Your task to perform on an android device: change the clock display to digital Image 0: 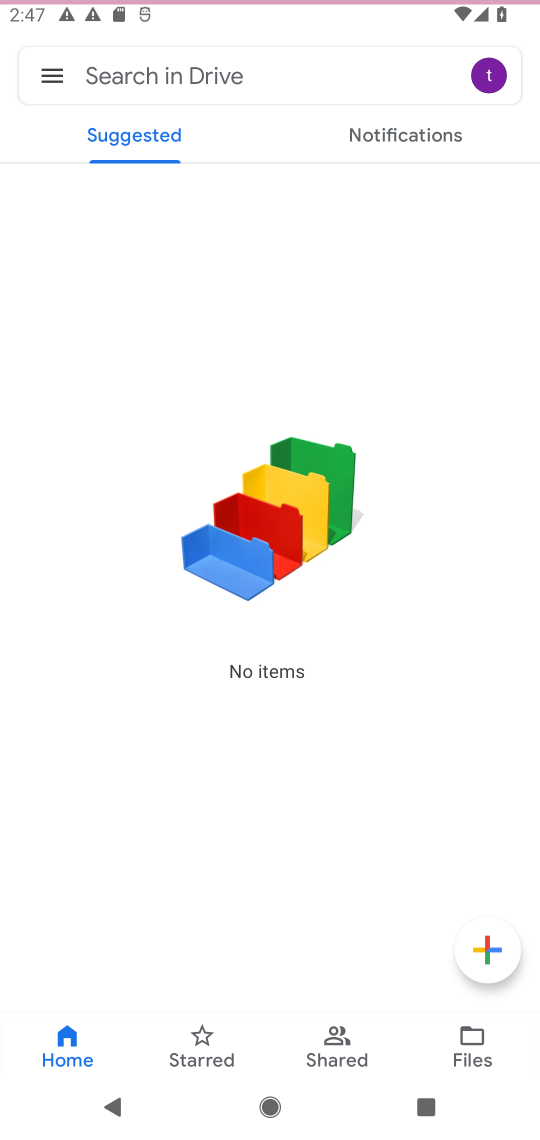
Step 0: press home button
Your task to perform on an android device: change the clock display to digital Image 1: 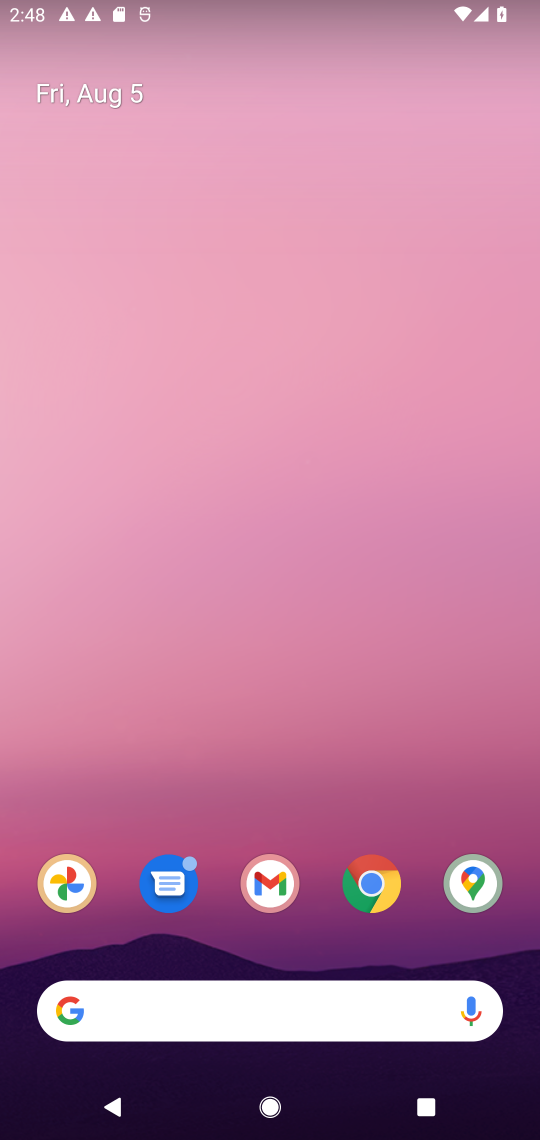
Step 1: drag from (318, 838) to (376, 0)
Your task to perform on an android device: change the clock display to digital Image 2: 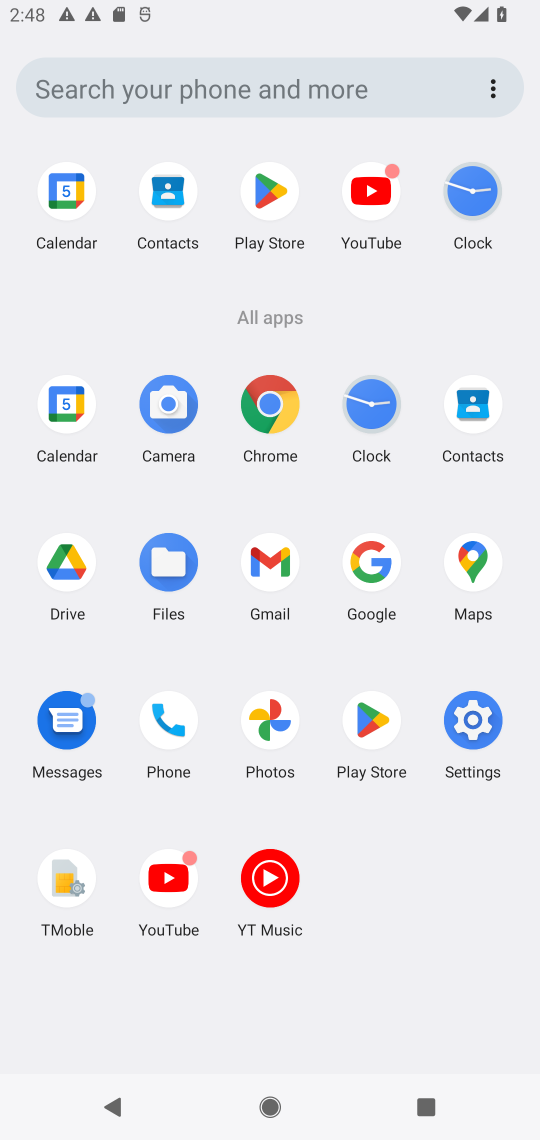
Step 2: click (370, 395)
Your task to perform on an android device: change the clock display to digital Image 3: 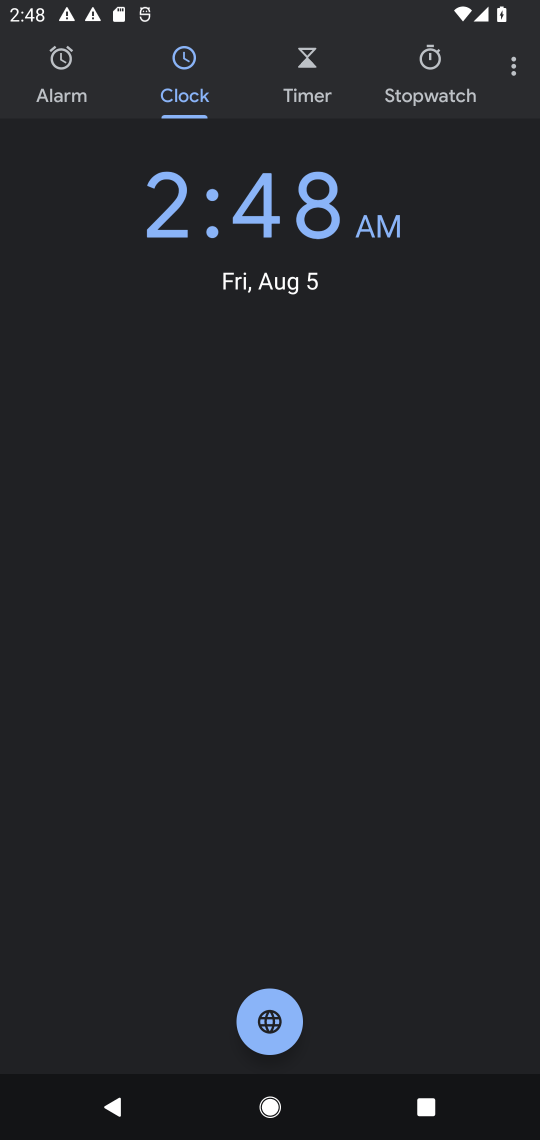
Step 3: click (513, 65)
Your task to perform on an android device: change the clock display to digital Image 4: 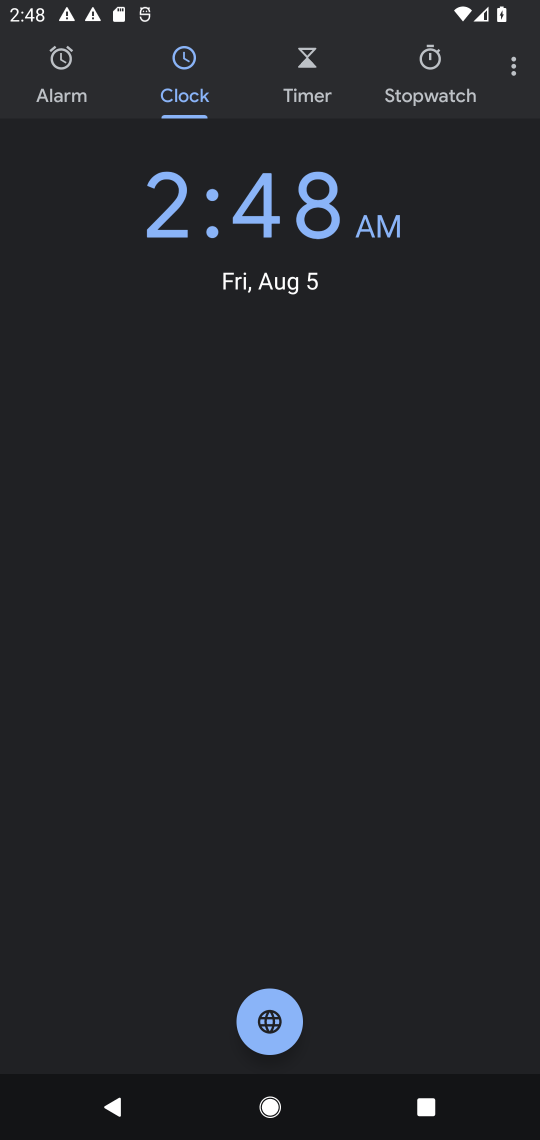
Step 4: click (516, 64)
Your task to perform on an android device: change the clock display to digital Image 5: 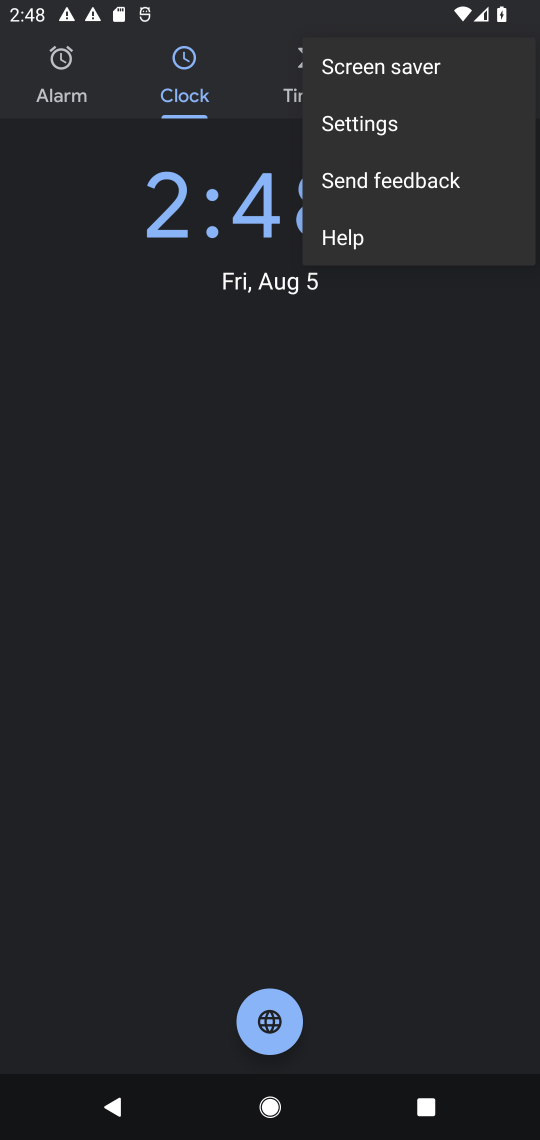
Step 5: click (411, 122)
Your task to perform on an android device: change the clock display to digital Image 6: 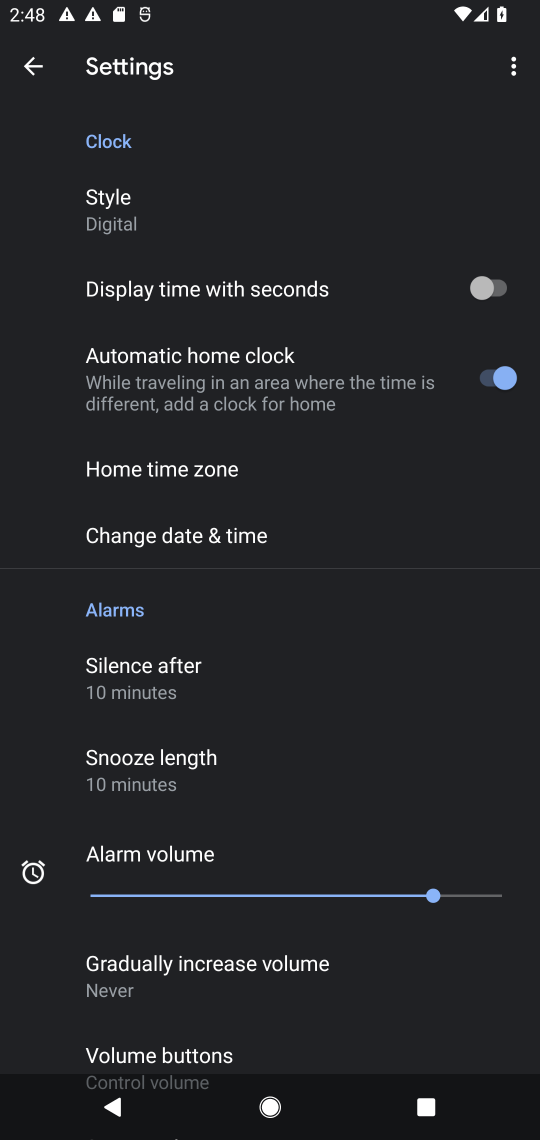
Step 6: click (167, 206)
Your task to perform on an android device: change the clock display to digital Image 7: 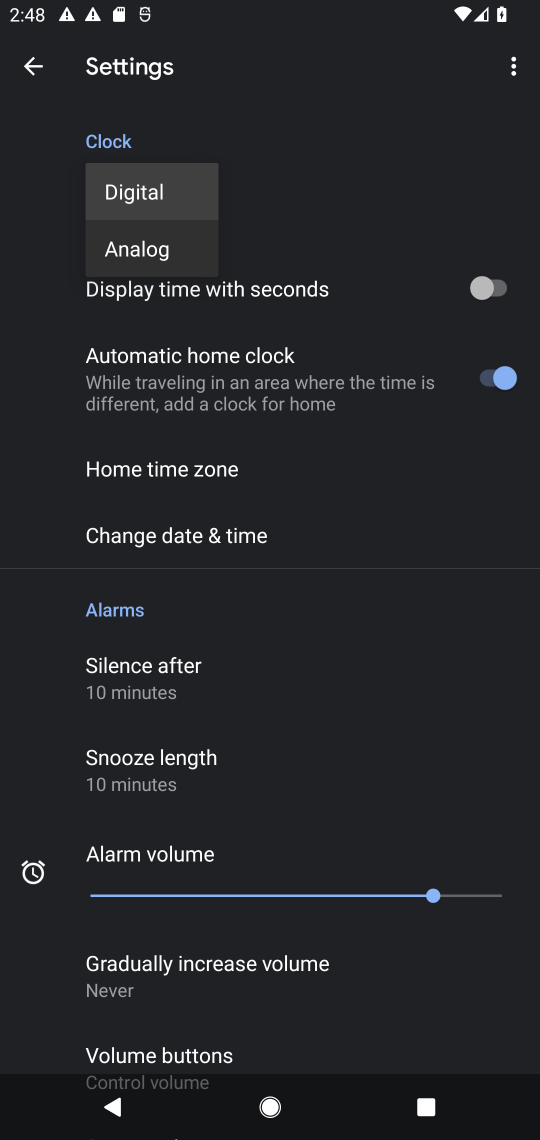
Step 7: click (152, 194)
Your task to perform on an android device: change the clock display to digital Image 8: 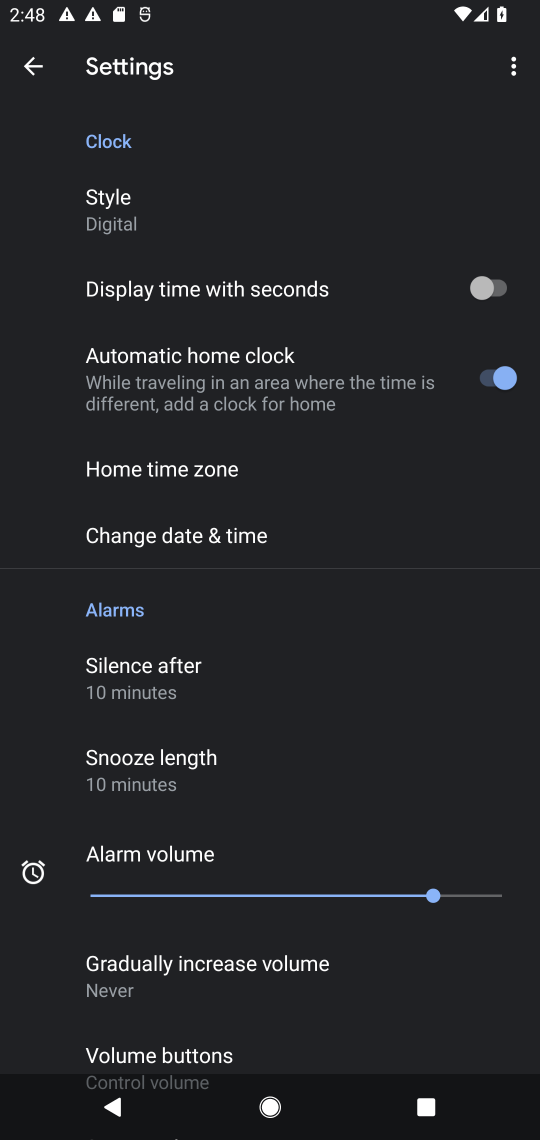
Step 8: task complete